Your task to perform on an android device: Go to battery settings Image 0: 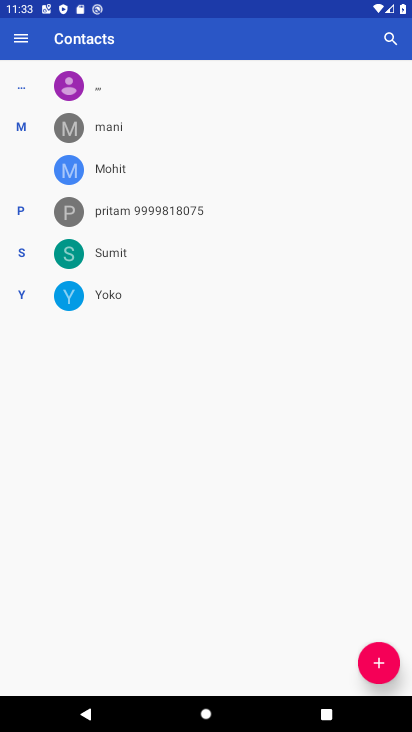
Step 0: drag from (215, 4) to (228, 613)
Your task to perform on an android device: Go to battery settings Image 1: 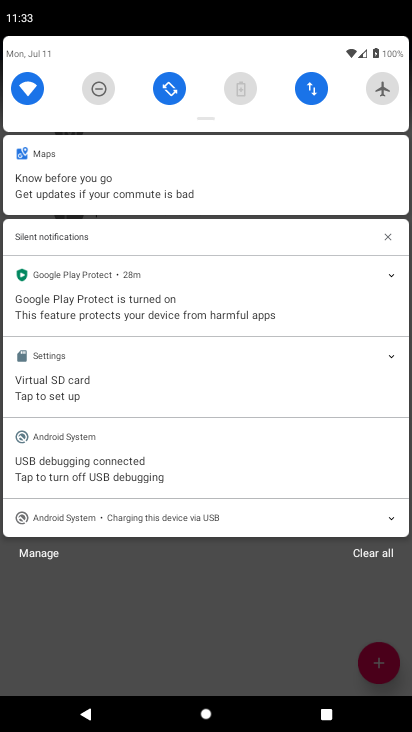
Step 1: click (243, 78)
Your task to perform on an android device: Go to battery settings Image 2: 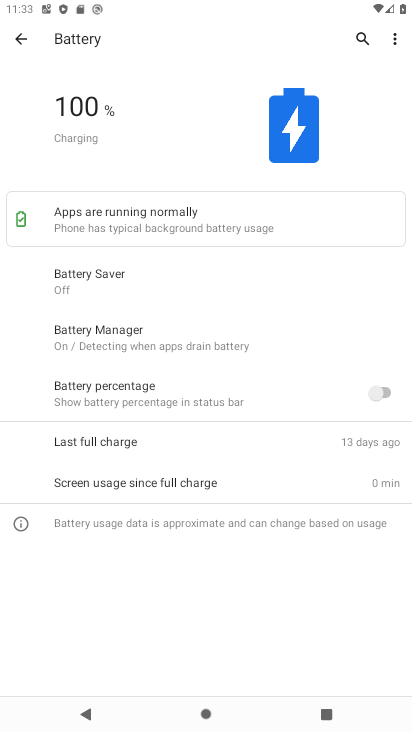
Step 2: task complete